Your task to perform on an android device: see tabs open on other devices in the chrome app Image 0: 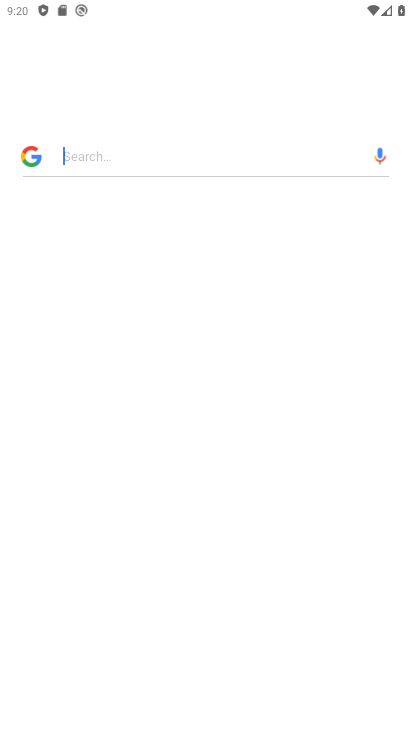
Step 0: press home button
Your task to perform on an android device: see tabs open on other devices in the chrome app Image 1: 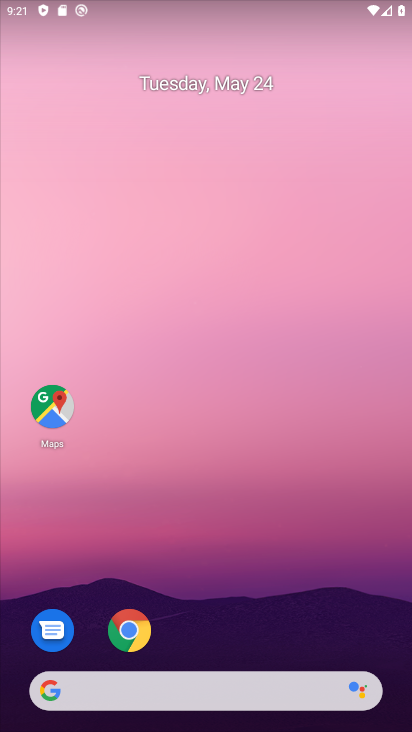
Step 1: click (124, 621)
Your task to perform on an android device: see tabs open on other devices in the chrome app Image 2: 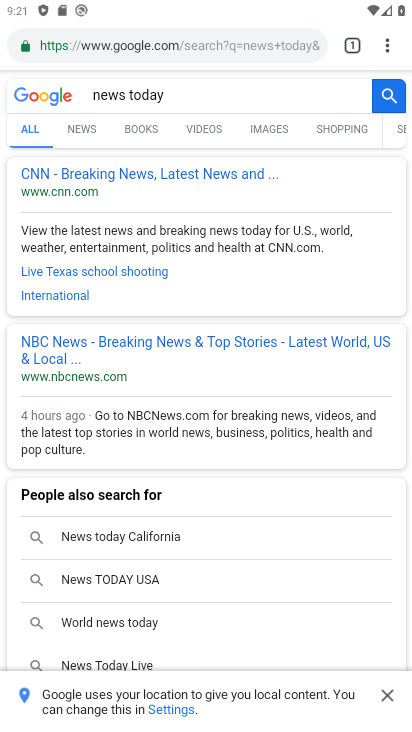
Step 2: click (382, 38)
Your task to perform on an android device: see tabs open on other devices in the chrome app Image 3: 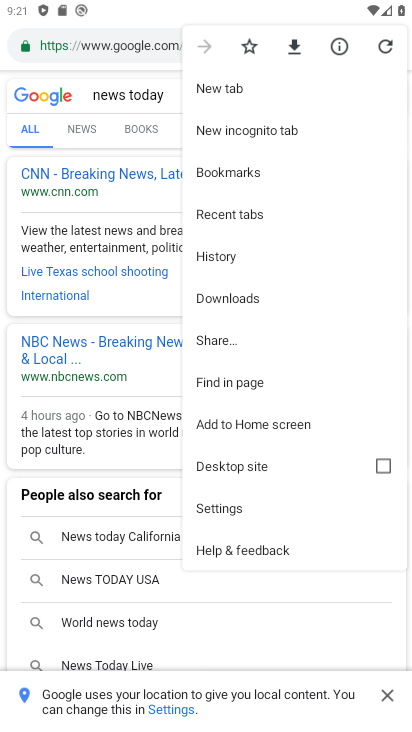
Step 3: click (255, 209)
Your task to perform on an android device: see tabs open on other devices in the chrome app Image 4: 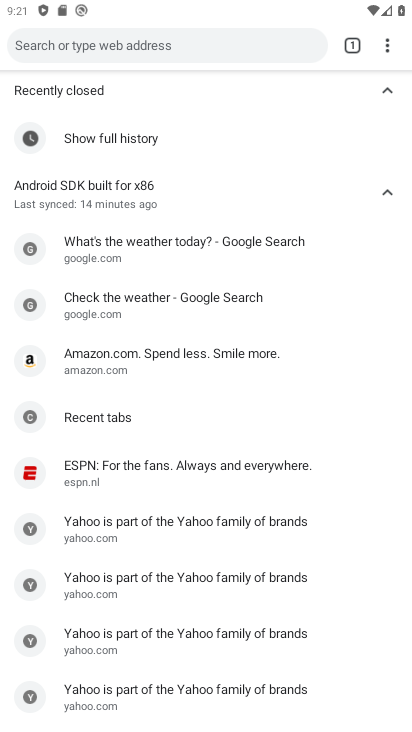
Step 4: task complete